Your task to perform on an android device: empty trash in the gmail app Image 0: 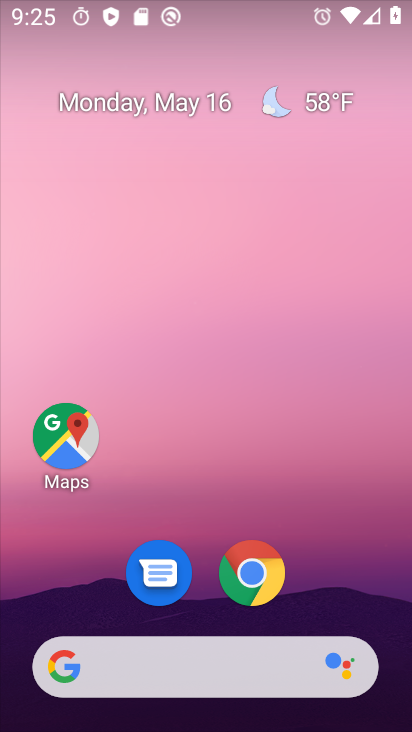
Step 0: drag from (363, 613) to (177, 7)
Your task to perform on an android device: empty trash in the gmail app Image 1: 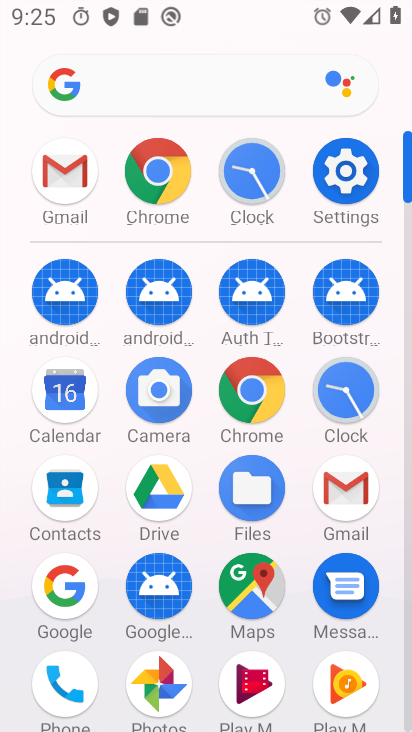
Step 1: click (353, 501)
Your task to perform on an android device: empty trash in the gmail app Image 2: 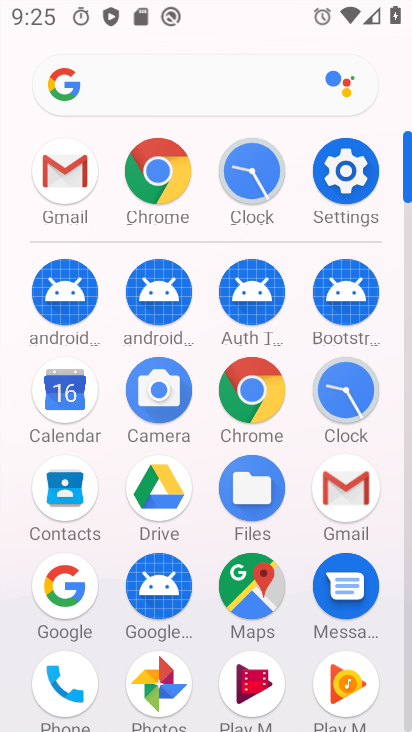
Step 2: click (352, 500)
Your task to perform on an android device: empty trash in the gmail app Image 3: 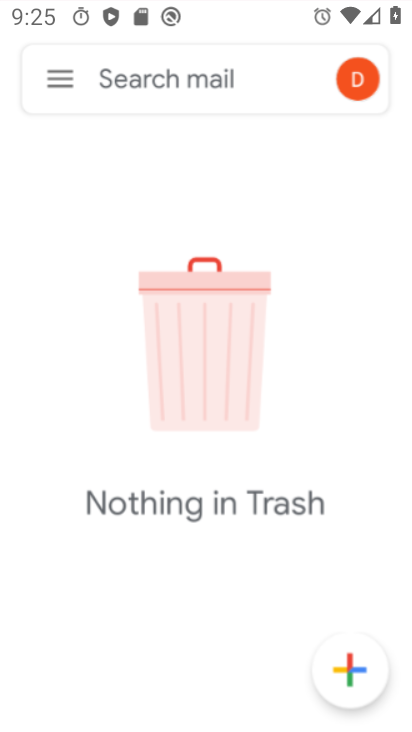
Step 3: click (352, 497)
Your task to perform on an android device: empty trash in the gmail app Image 4: 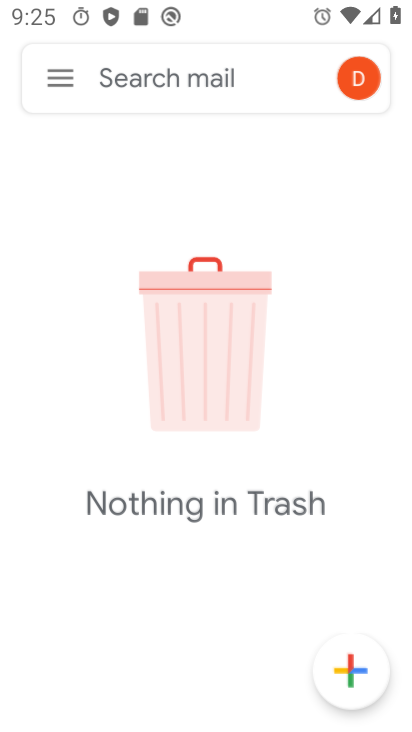
Step 4: click (352, 494)
Your task to perform on an android device: empty trash in the gmail app Image 5: 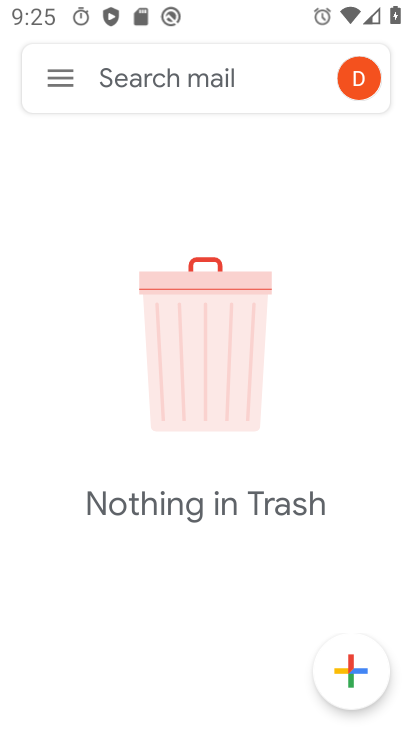
Step 5: click (75, 83)
Your task to perform on an android device: empty trash in the gmail app Image 6: 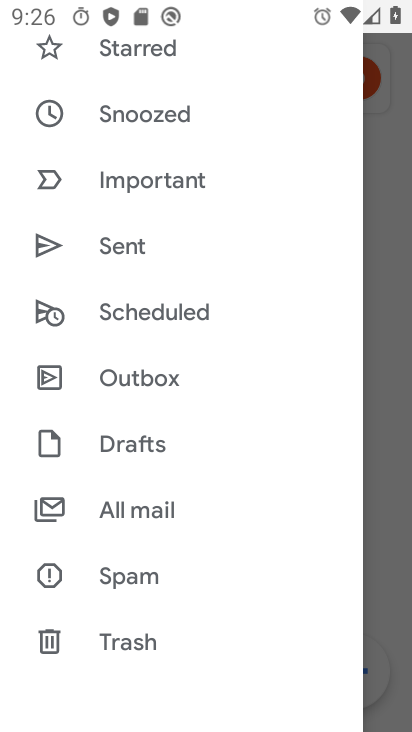
Step 6: click (127, 639)
Your task to perform on an android device: empty trash in the gmail app Image 7: 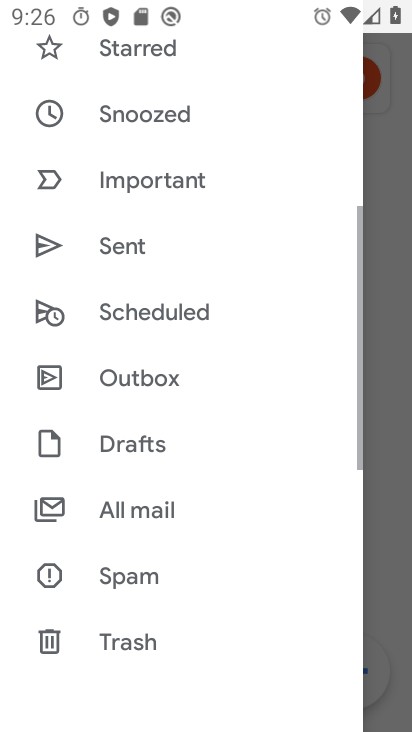
Step 7: click (128, 638)
Your task to perform on an android device: empty trash in the gmail app Image 8: 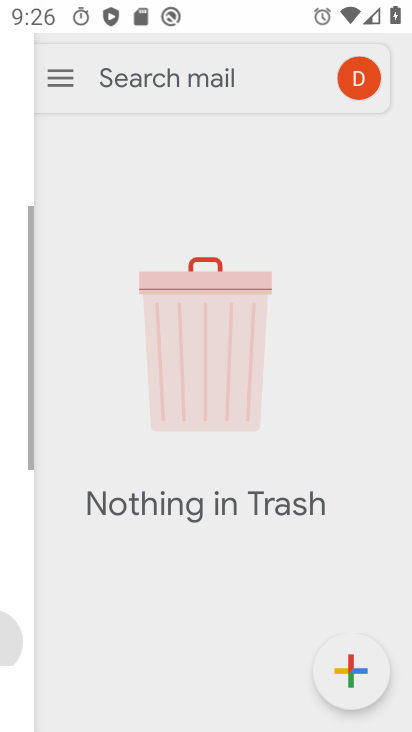
Step 8: click (125, 632)
Your task to perform on an android device: empty trash in the gmail app Image 9: 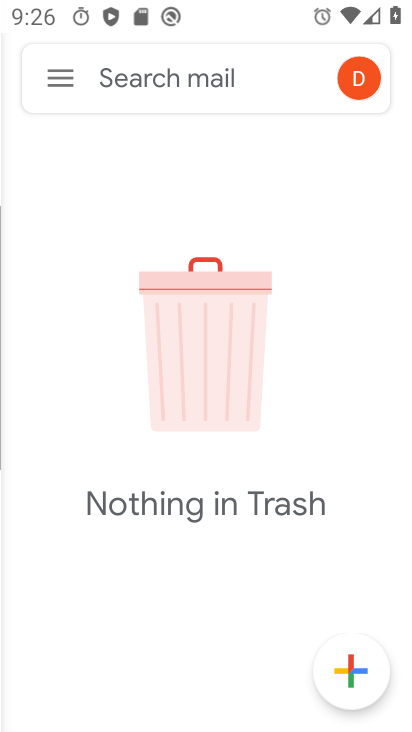
Step 9: click (126, 627)
Your task to perform on an android device: empty trash in the gmail app Image 10: 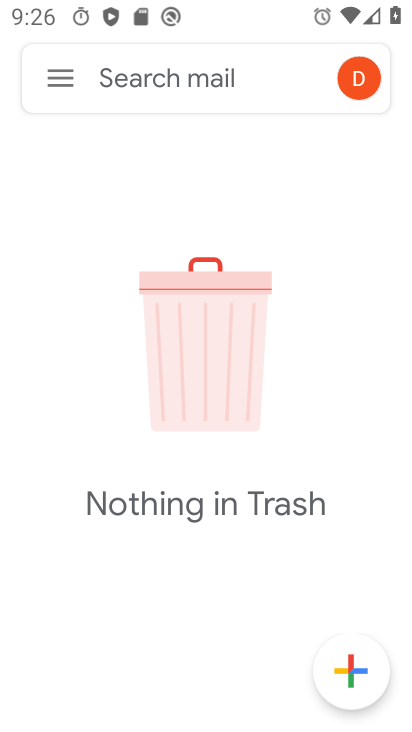
Step 10: task complete